Your task to perform on an android device: stop showing notifications on the lock screen Image 0: 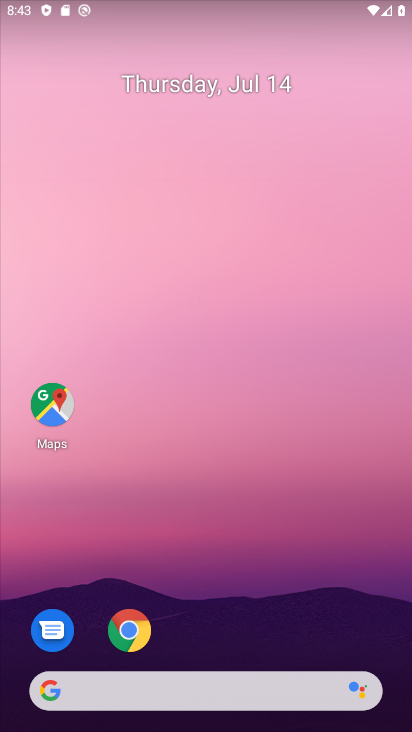
Step 0: drag from (212, 654) to (138, 57)
Your task to perform on an android device: stop showing notifications on the lock screen Image 1: 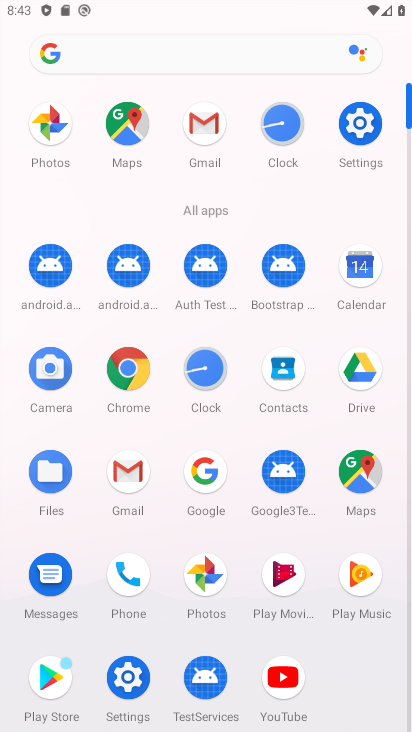
Step 1: click (358, 123)
Your task to perform on an android device: stop showing notifications on the lock screen Image 2: 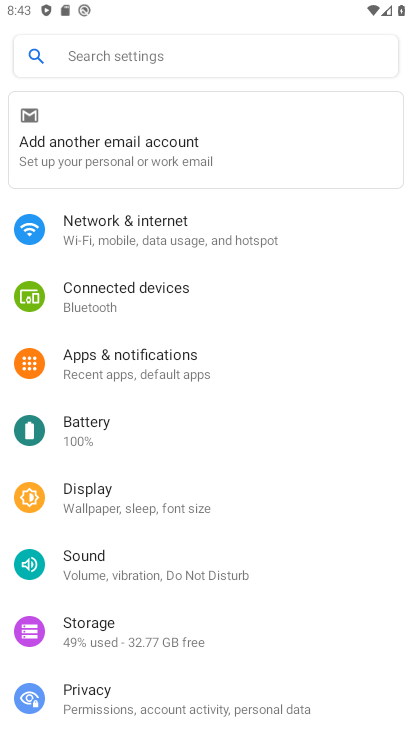
Step 2: click (132, 365)
Your task to perform on an android device: stop showing notifications on the lock screen Image 3: 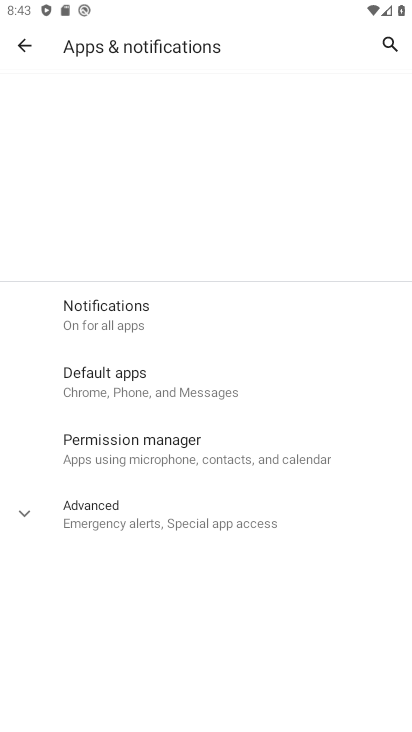
Step 3: click (120, 330)
Your task to perform on an android device: stop showing notifications on the lock screen Image 4: 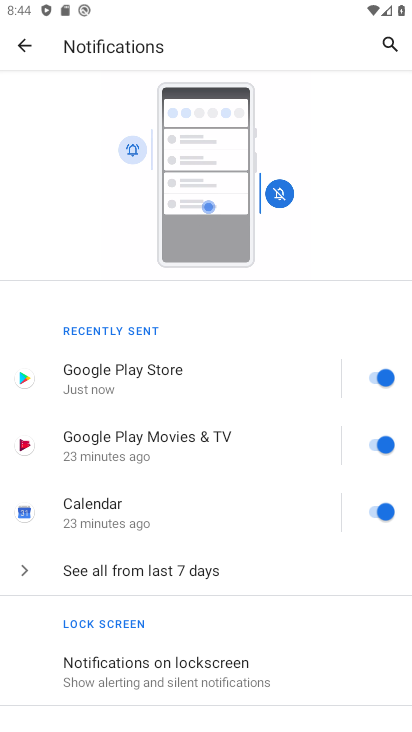
Step 4: click (129, 660)
Your task to perform on an android device: stop showing notifications on the lock screen Image 5: 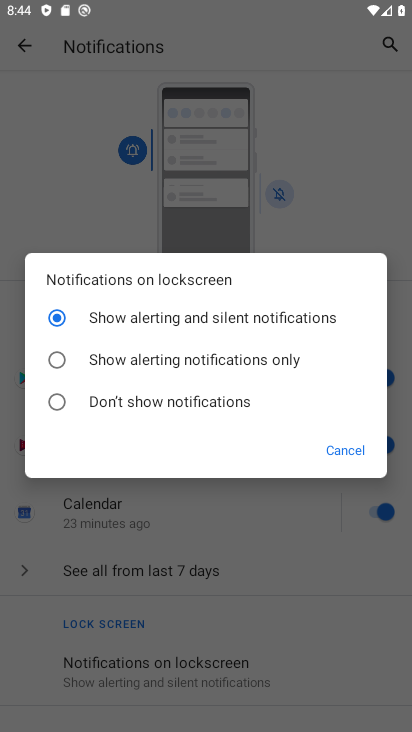
Step 5: click (134, 399)
Your task to perform on an android device: stop showing notifications on the lock screen Image 6: 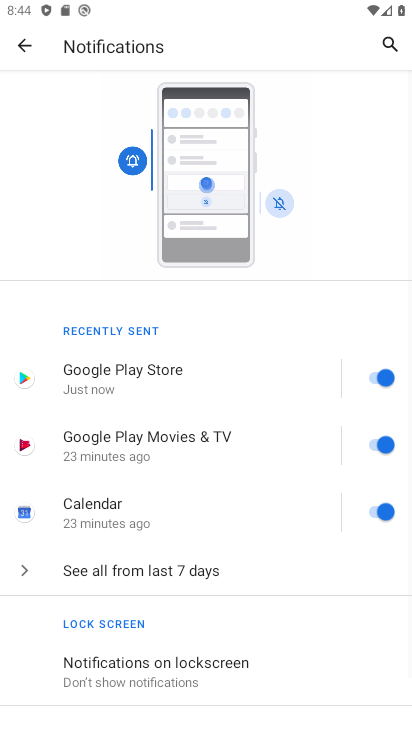
Step 6: task complete